Your task to perform on an android device: What's the weather like in Mumbai? Image 0: 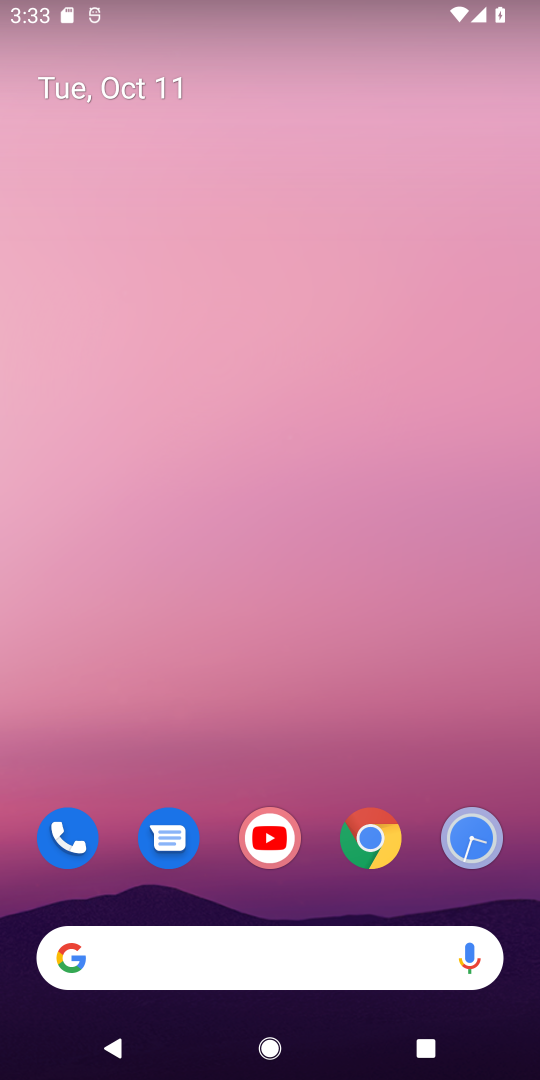
Step 0: click (211, 950)
Your task to perform on an android device: What's the weather like in Mumbai? Image 1: 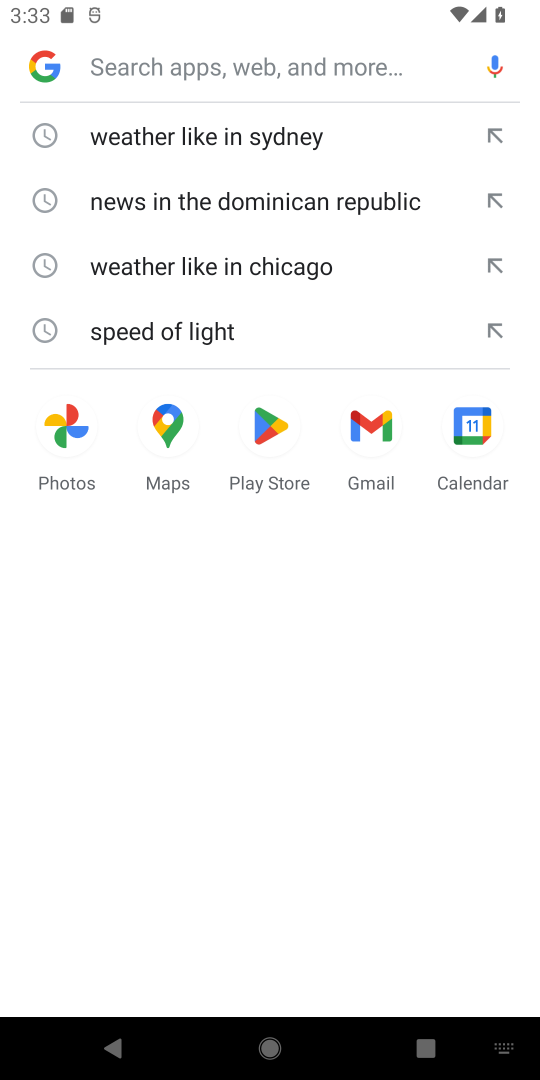
Step 1: type "weather like in Mumbai?"
Your task to perform on an android device: What's the weather like in Mumbai? Image 2: 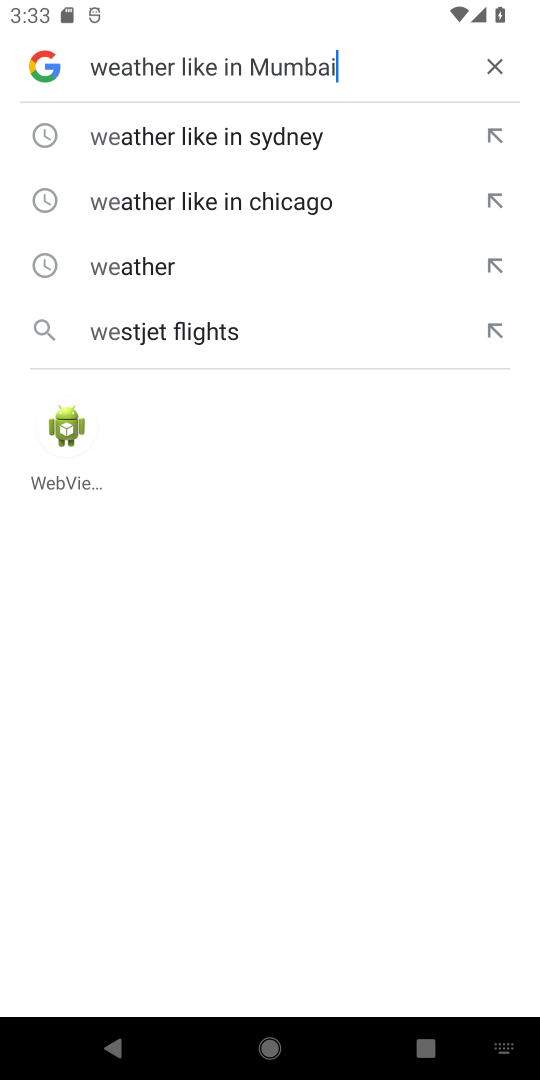
Step 2: type ""
Your task to perform on an android device: What's the weather like in Mumbai? Image 3: 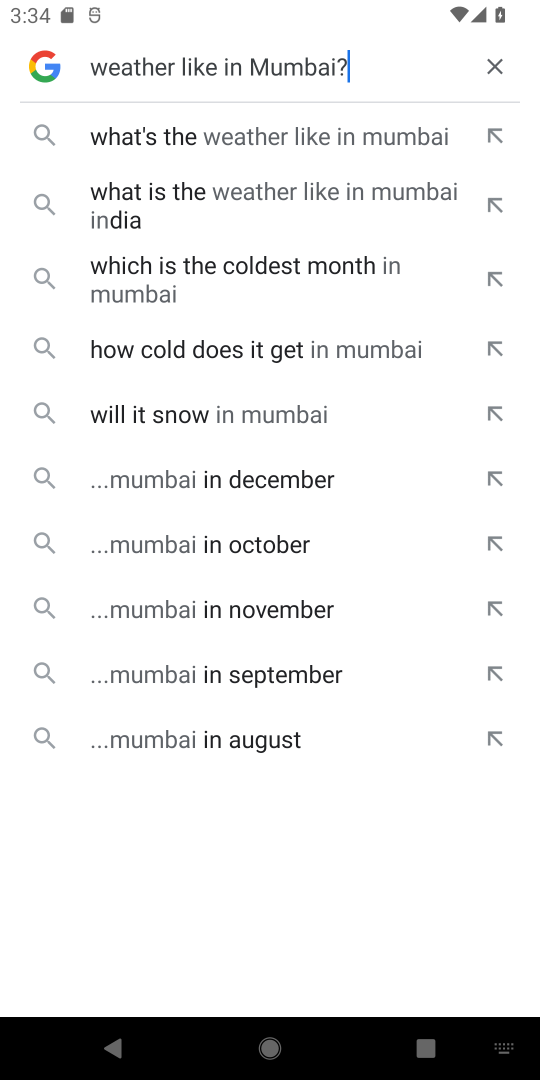
Step 3: click (333, 147)
Your task to perform on an android device: What's the weather like in Mumbai? Image 4: 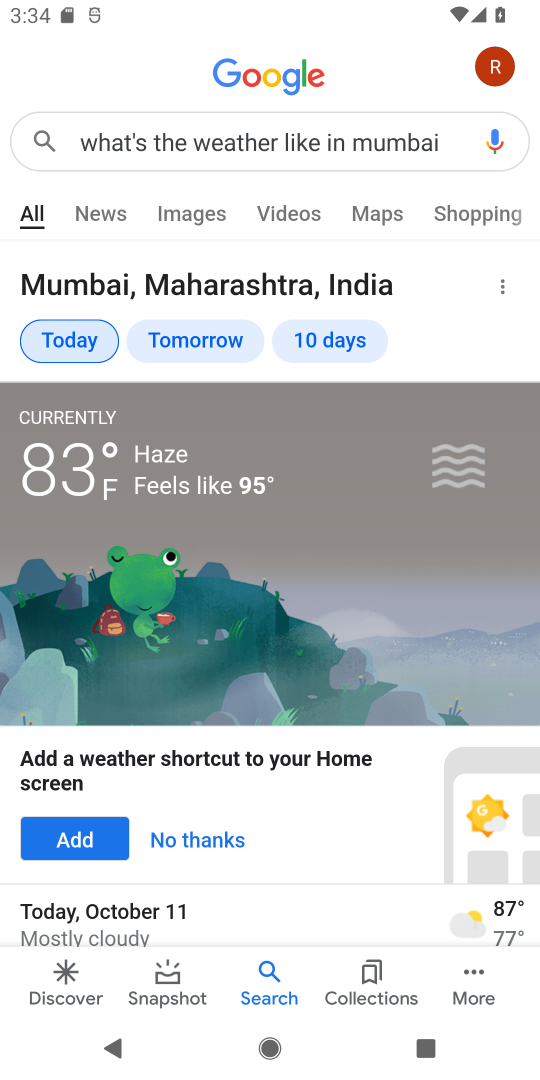
Step 4: task complete